Your task to perform on an android device: Open the phone app and click the voicemail tab. Image 0: 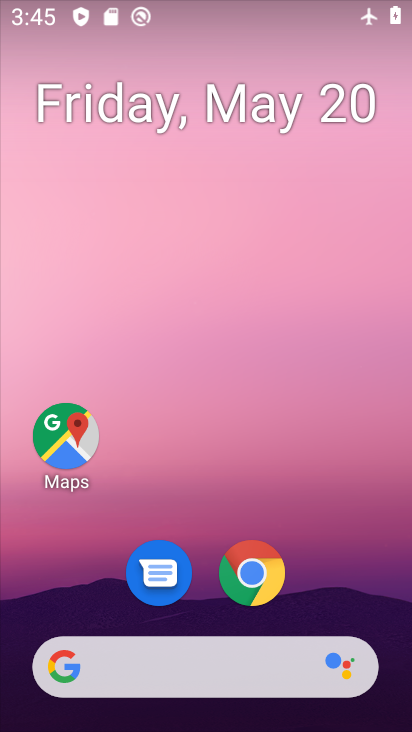
Step 0: drag from (373, 597) to (250, 72)
Your task to perform on an android device: Open the phone app and click the voicemail tab. Image 1: 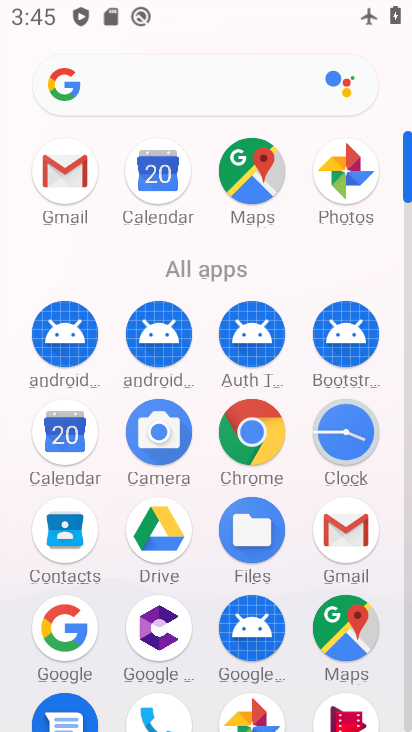
Step 1: click (405, 708)
Your task to perform on an android device: Open the phone app and click the voicemail tab. Image 2: 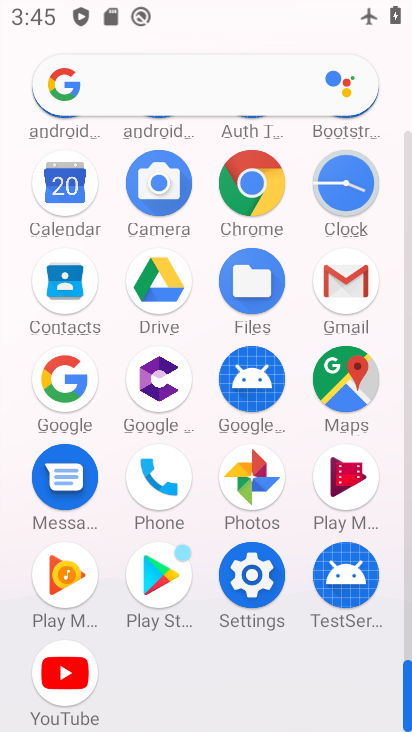
Step 2: click (157, 489)
Your task to perform on an android device: Open the phone app and click the voicemail tab. Image 3: 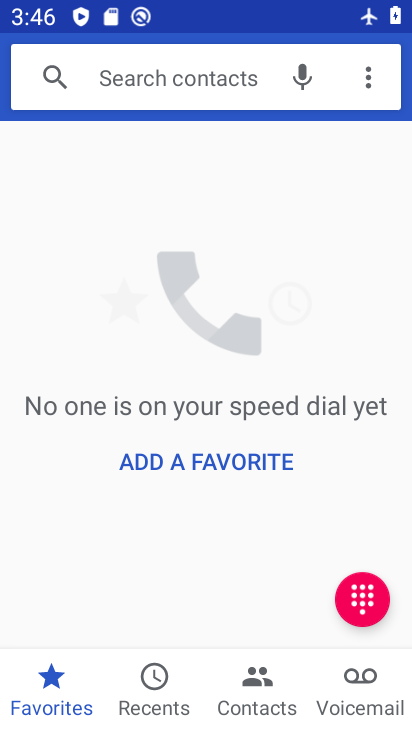
Step 3: click (359, 673)
Your task to perform on an android device: Open the phone app and click the voicemail tab. Image 4: 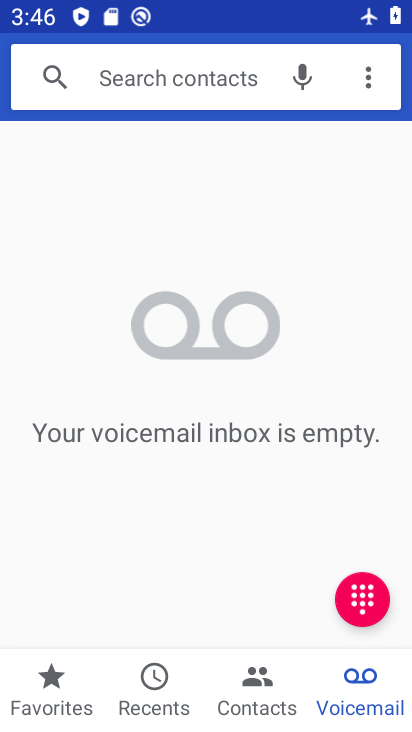
Step 4: task complete